Your task to perform on an android device: Toggle the flashlight Image 0: 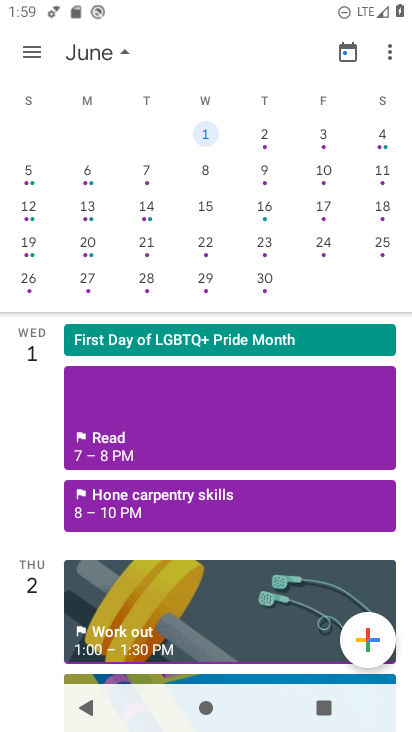
Step 0: press home button
Your task to perform on an android device: Toggle the flashlight Image 1: 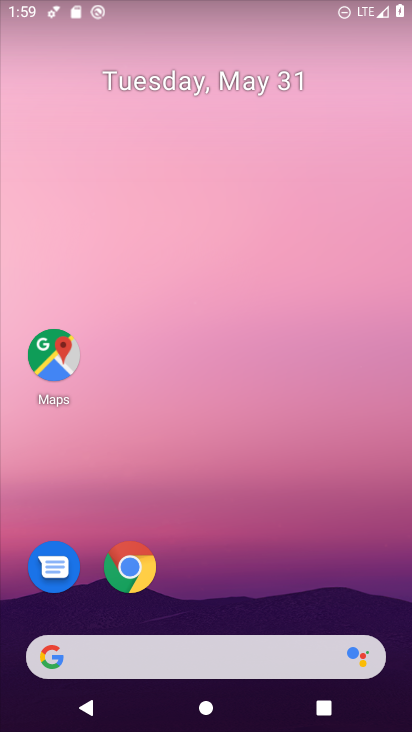
Step 1: drag from (260, 580) to (265, 88)
Your task to perform on an android device: Toggle the flashlight Image 2: 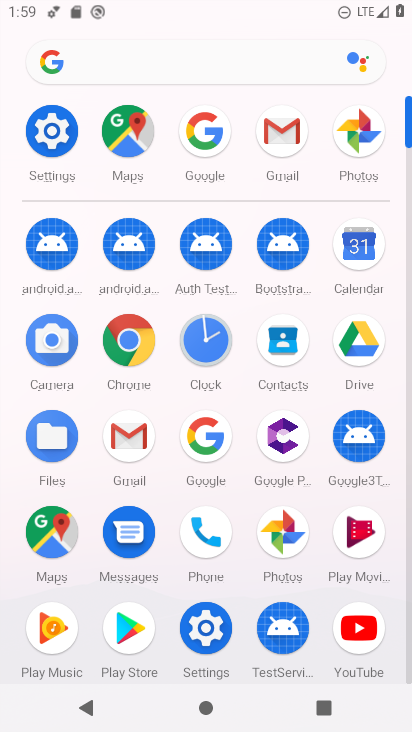
Step 2: click (23, 131)
Your task to perform on an android device: Toggle the flashlight Image 3: 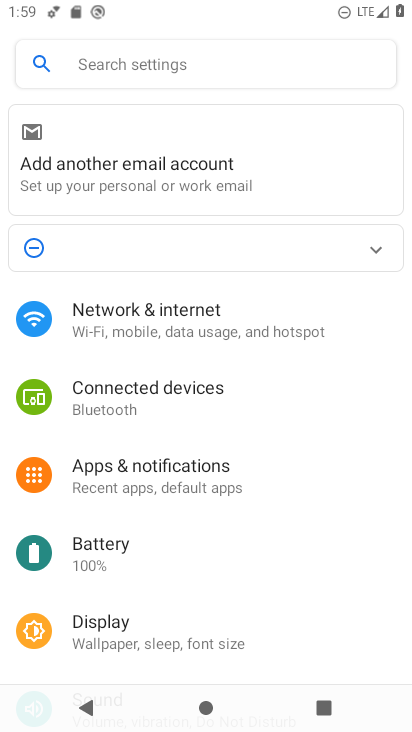
Step 3: task complete